Your task to perform on an android device: toggle improve location accuracy Image 0: 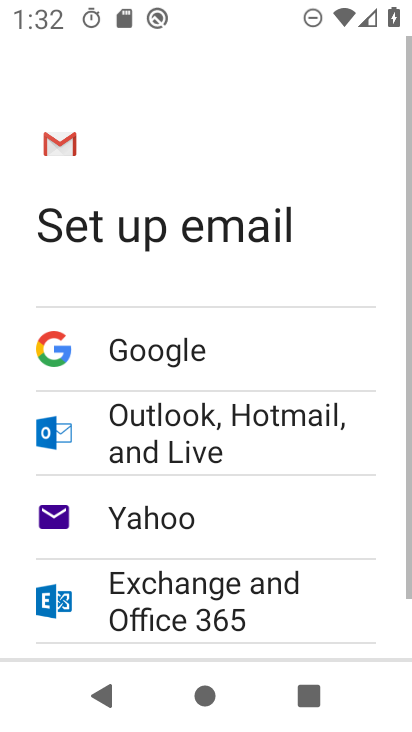
Step 0: press home button
Your task to perform on an android device: toggle improve location accuracy Image 1: 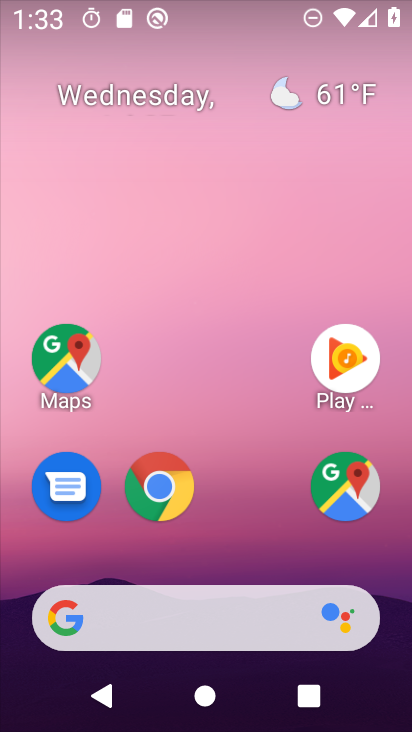
Step 1: drag from (269, 531) to (275, 207)
Your task to perform on an android device: toggle improve location accuracy Image 2: 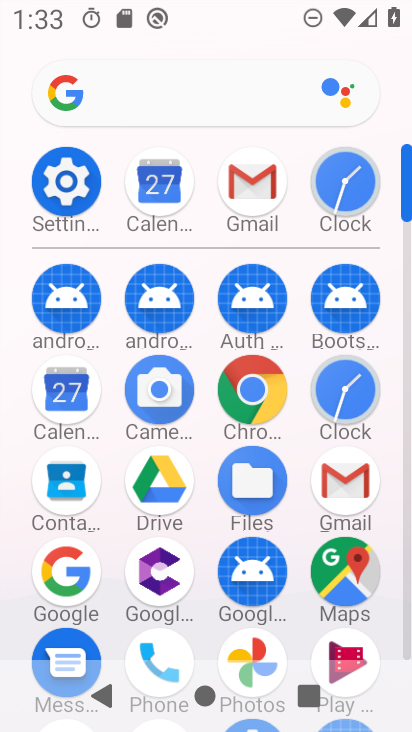
Step 2: click (81, 192)
Your task to perform on an android device: toggle improve location accuracy Image 3: 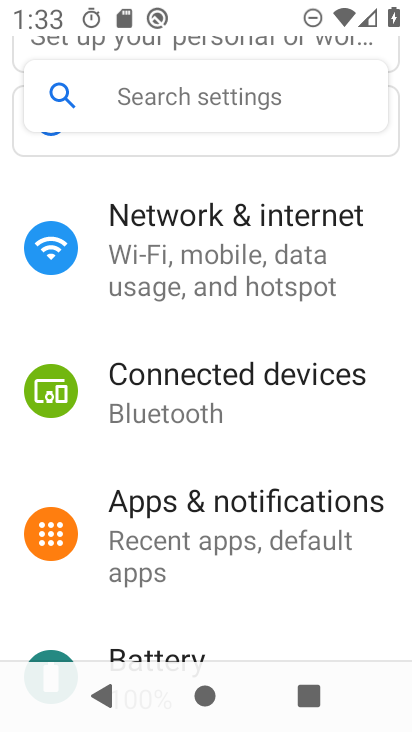
Step 3: drag from (367, 600) to (370, 532)
Your task to perform on an android device: toggle improve location accuracy Image 4: 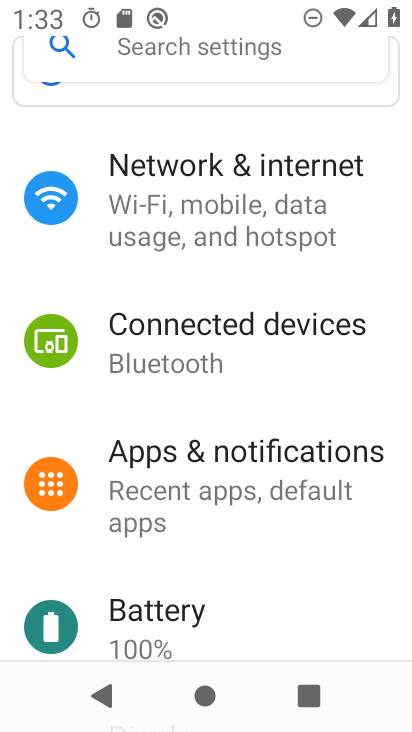
Step 4: drag from (361, 599) to (357, 506)
Your task to perform on an android device: toggle improve location accuracy Image 5: 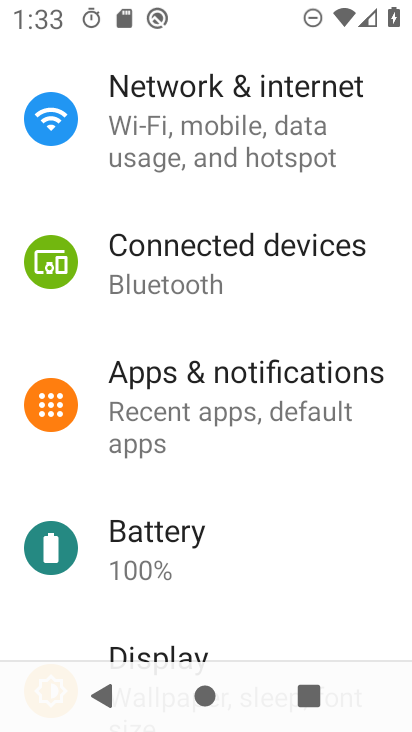
Step 5: drag from (346, 540) to (347, 486)
Your task to perform on an android device: toggle improve location accuracy Image 6: 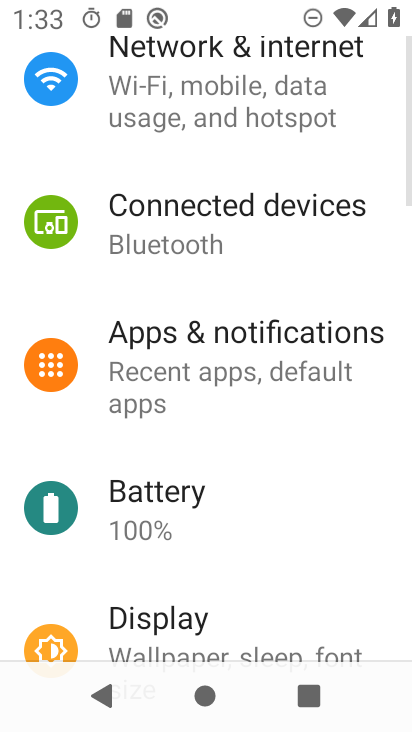
Step 6: drag from (339, 568) to (339, 510)
Your task to perform on an android device: toggle improve location accuracy Image 7: 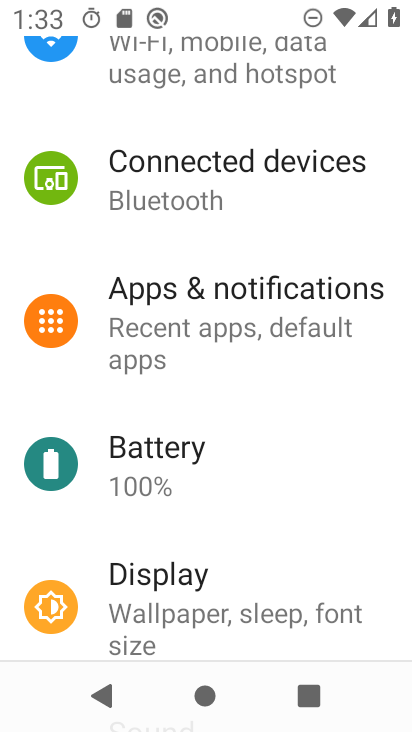
Step 7: drag from (343, 622) to (340, 539)
Your task to perform on an android device: toggle improve location accuracy Image 8: 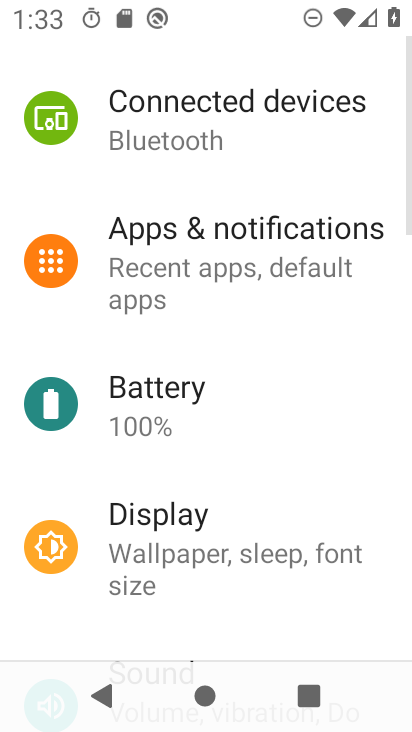
Step 8: drag from (357, 596) to (357, 521)
Your task to perform on an android device: toggle improve location accuracy Image 9: 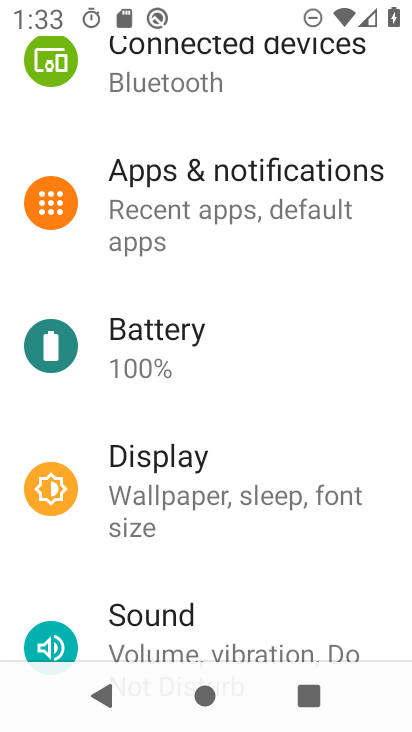
Step 9: drag from (366, 592) to (373, 512)
Your task to perform on an android device: toggle improve location accuracy Image 10: 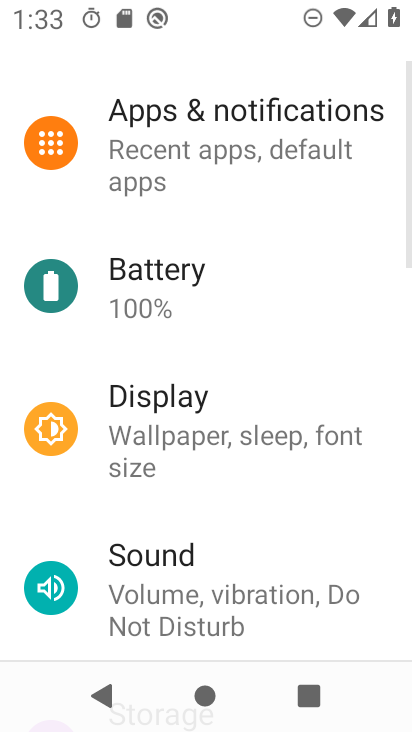
Step 10: drag from (376, 610) to (384, 532)
Your task to perform on an android device: toggle improve location accuracy Image 11: 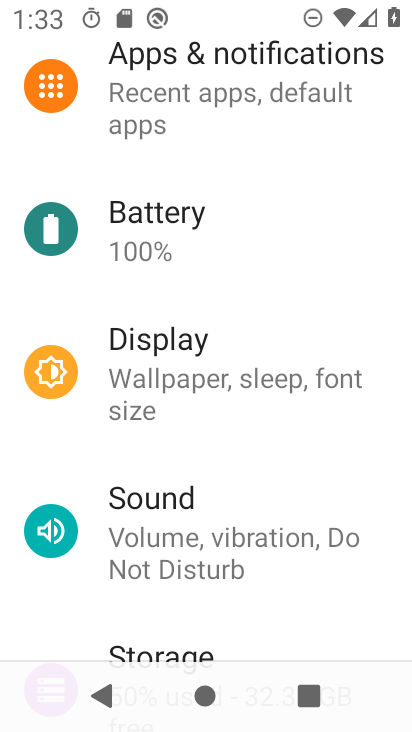
Step 11: drag from (380, 592) to (379, 511)
Your task to perform on an android device: toggle improve location accuracy Image 12: 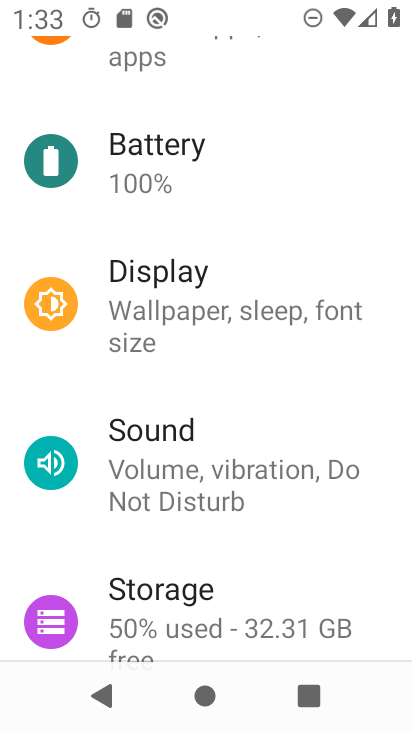
Step 12: drag from (373, 597) to (368, 539)
Your task to perform on an android device: toggle improve location accuracy Image 13: 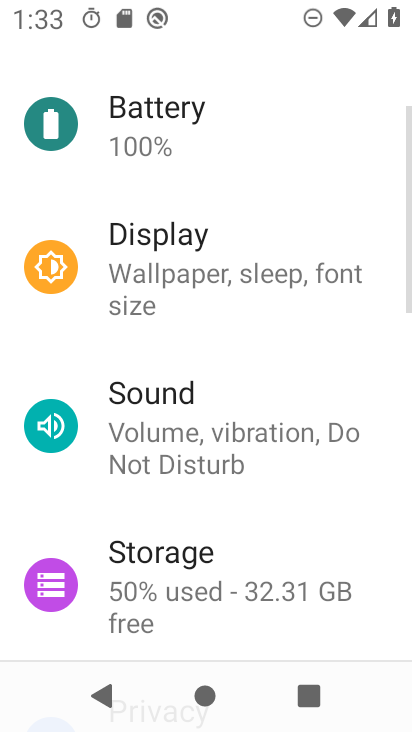
Step 13: drag from (369, 617) to (368, 565)
Your task to perform on an android device: toggle improve location accuracy Image 14: 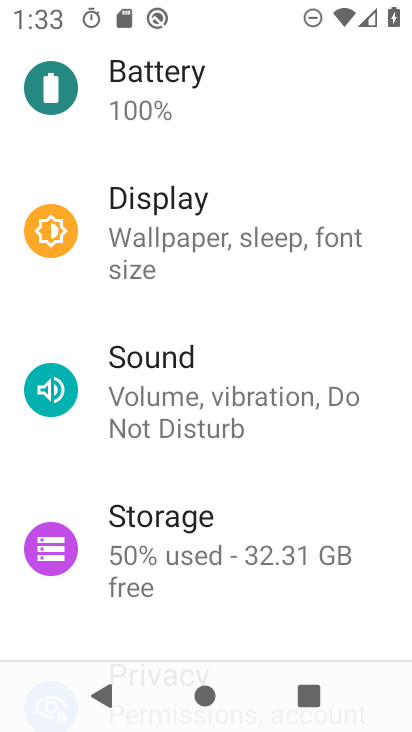
Step 14: drag from (358, 612) to (361, 564)
Your task to perform on an android device: toggle improve location accuracy Image 15: 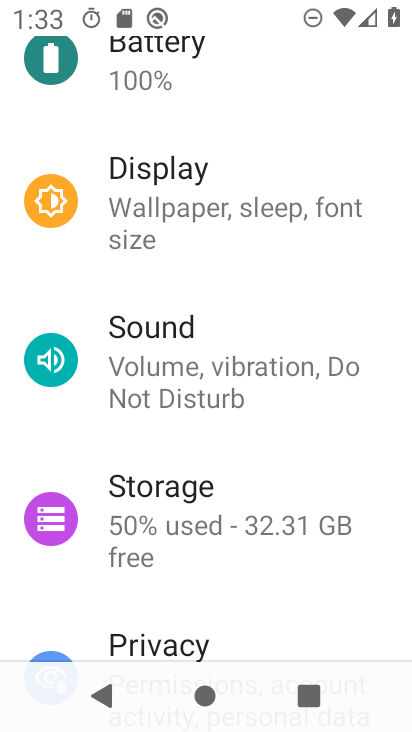
Step 15: drag from (353, 611) to (359, 496)
Your task to perform on an android device: toggle improve location accuracy Image 16: 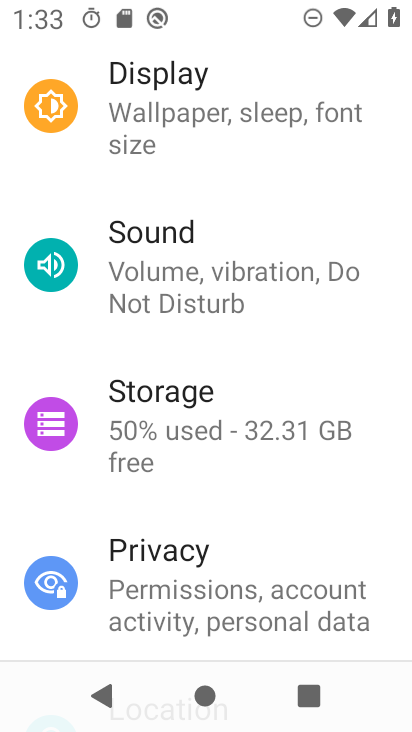
Step 16: drag from (358, 613) to (377, 509)
Your task to perform on an android device: toggle improve location accuracy Image 17: 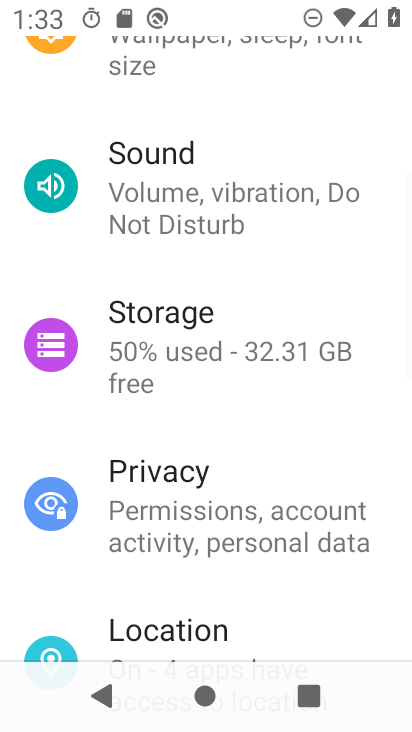
Step 17: drag from (360, 614) to (361, 510)
Your task to perform on an android device: toggle improve location accuracy Image 18: 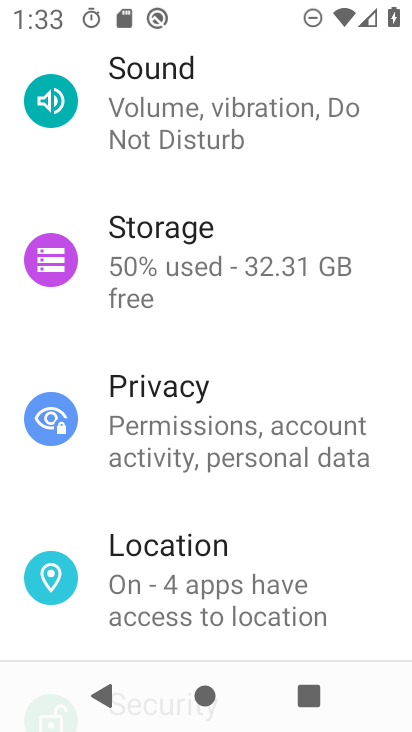
Step 18: click (342, 566)
Your task to perform on an android device: toggle improve location accuracy Image 19: 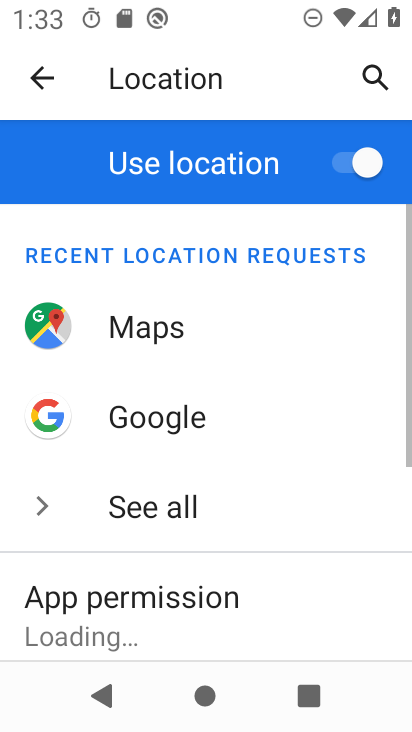
Step 19: drag from (342, 567) to (341, 496)
Your task to perform on an android device: toggle improve location accuracy Image 20: 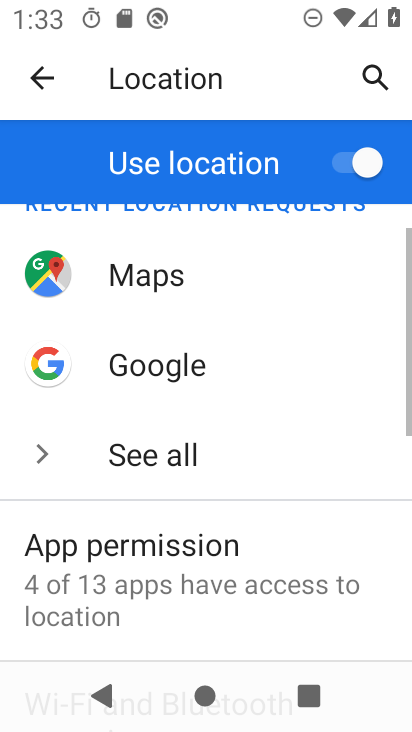
Step 20: drag from (328, 574) to (328, 487)
Your task to perform on an android device: toggle improve location accuracy Image 21: 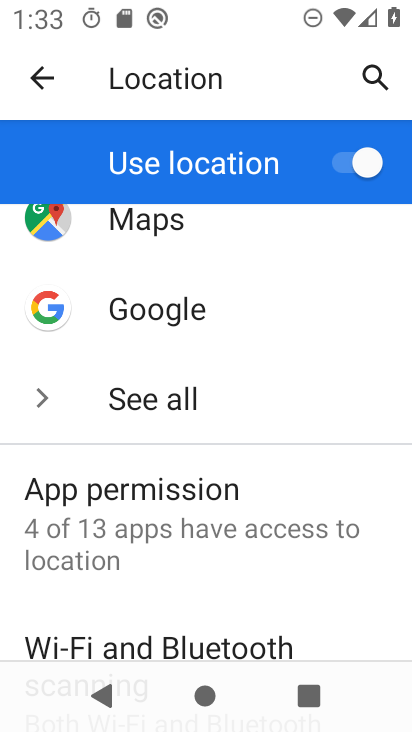
Step 21: drag from (325, 556) to (328, 467)
Your task to perform on an android device: toggle improve location accuracy Image 22: 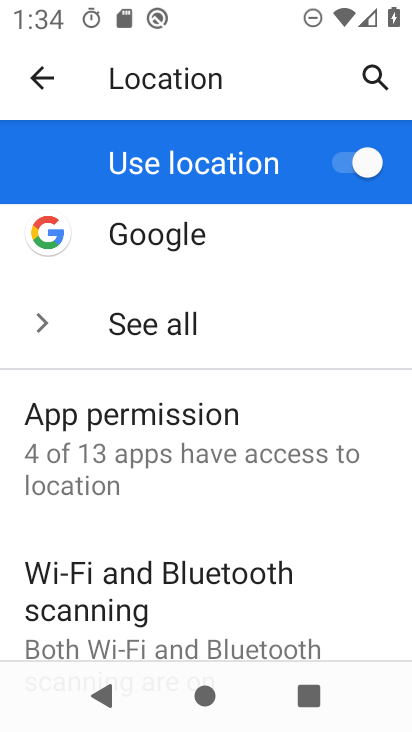
Step 22: drag from (310, 598) to (317, 427)
Your task to perform on an android device: toggle improve location accuracy Image 23: 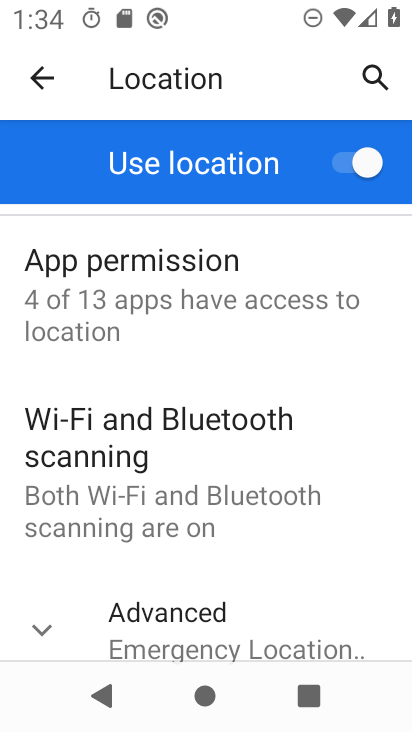
Step 23: click (260, 617)
Your task to perform on an android device: toggle improve location accuracy Image 24: 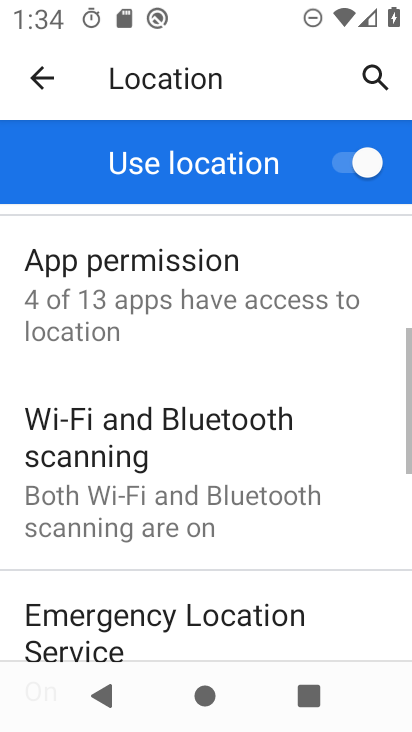
Step 24: drag from (270, 604) to (269, 509)
Your task to perform on an android device: toggle improve location accuracy Image 25: 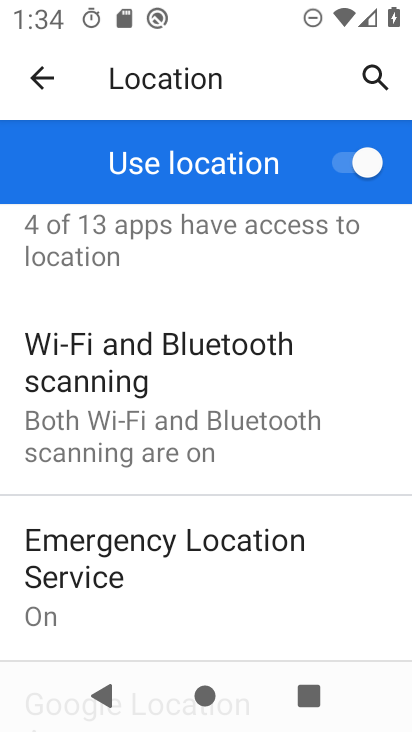
Step 25: drag from (244, 600) to (249, 524)
Your task to perform on an android device: toggle improve location accuracy Image 26: 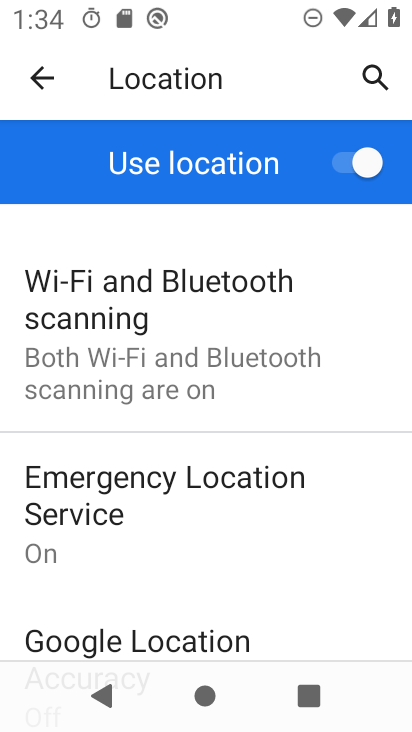
Step 26: drag from (237, 609) to (246, 489)
Your task to perform on an android device: toggle improve location accuracy Image 27: 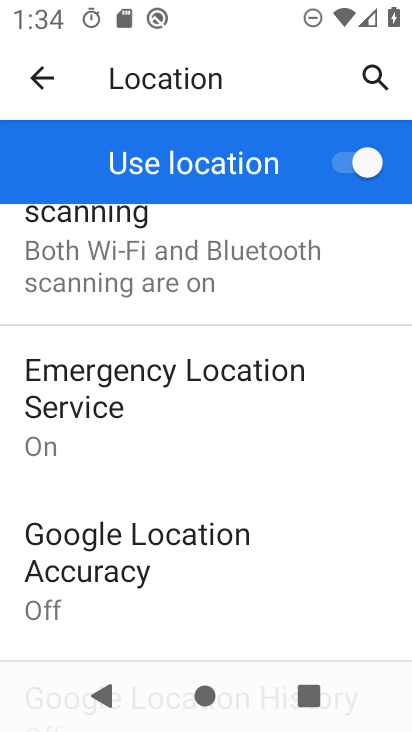
Step 27: drag from (236, 588) to (239, 483)
Your task to perform on an android device: toggle improve location accuracy Image 28: 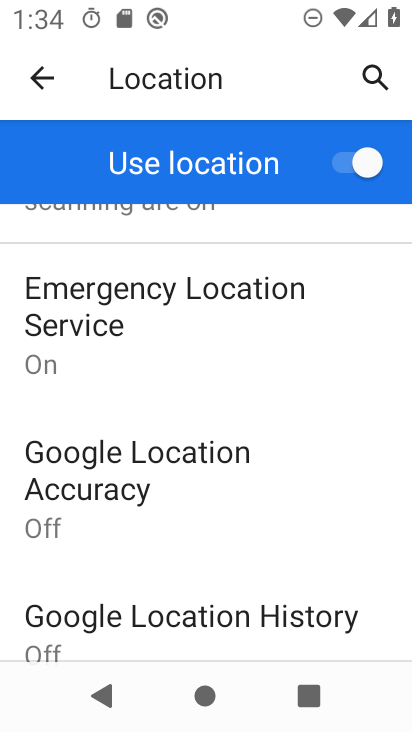
Step 28: drag from (220, 618) to (224, 512)
Your task to perform on an android device: toggle improve location accuracy Image 29: 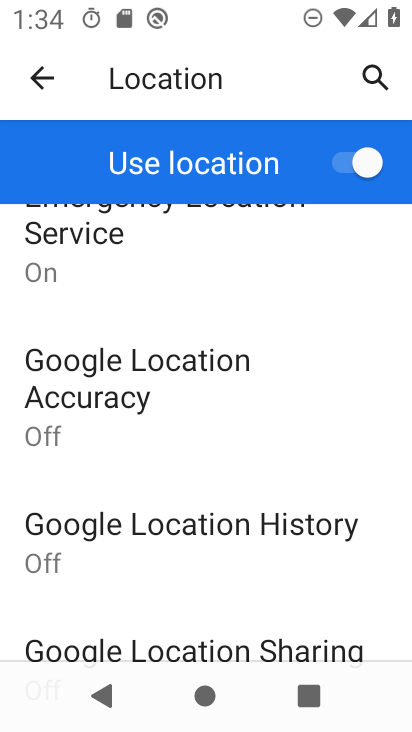
Step 29: click (191, 408)
Your task to perform on an android device: toggle improve location accuracy Image 30: 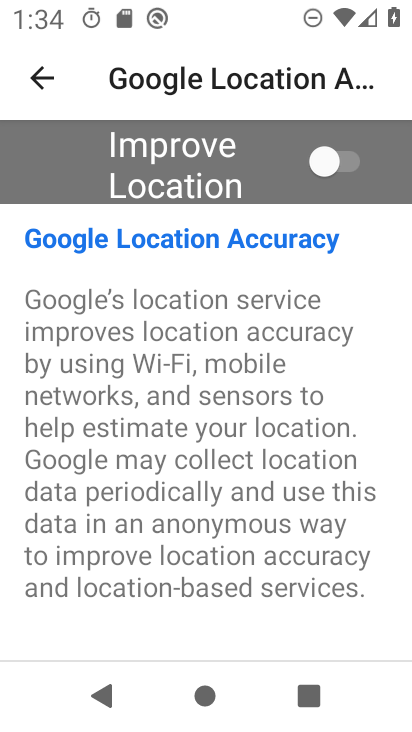
Step 30: click (307, 168)
Your task to perform on an android device: toggle improve location accuracy Image 31: 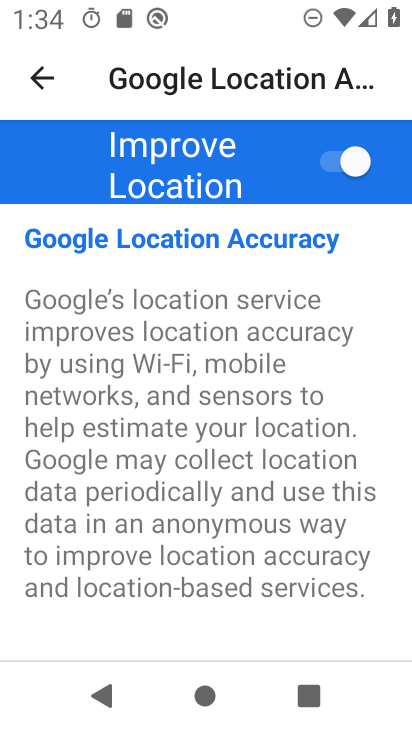
Step 31: task complete